Your task to perform on an android device: check android version Image 0: 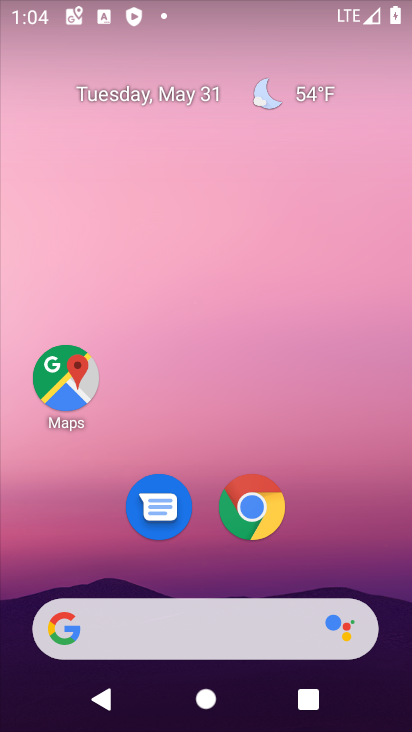
Step 0: drag from (388, 641) to (309, 79)
Your task to perform on an android device: check android version Image 1: 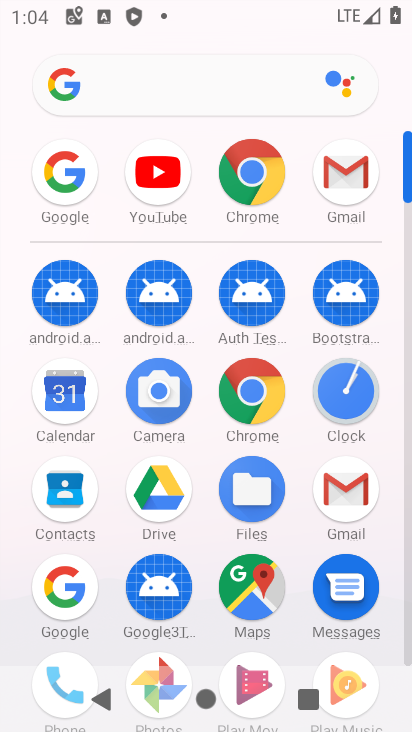
Step 1: drag from (207, 615) to (209, 144)
Your task to perform on an android device: check android version Image 2: 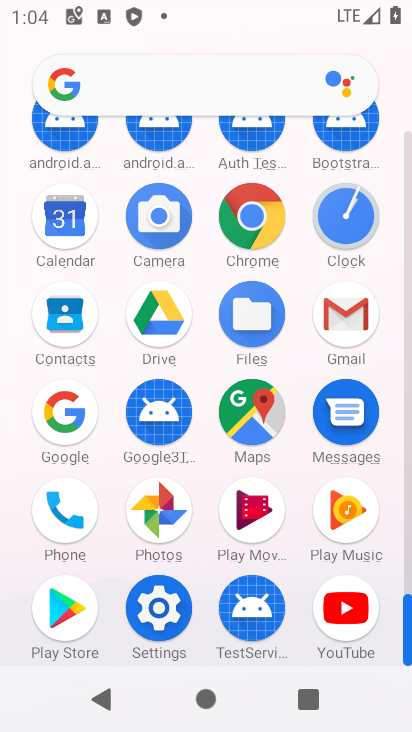
Step 2: click (155, 621)
Your task to perform on an android device: check android version Image 3: 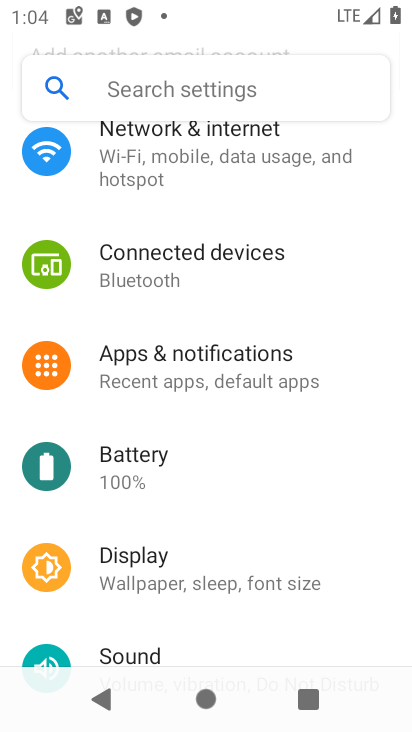
Step 3: drag from (180, 589) to (235, 6)
Your task to perform on an android device: check android version Image 4: 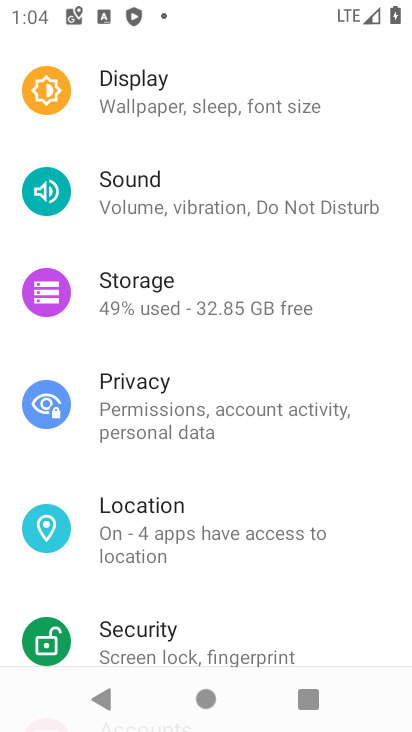
Step 4: drag from (110, 614) to (195, 11)
Your task to perform on an android device: check android version Image 5: 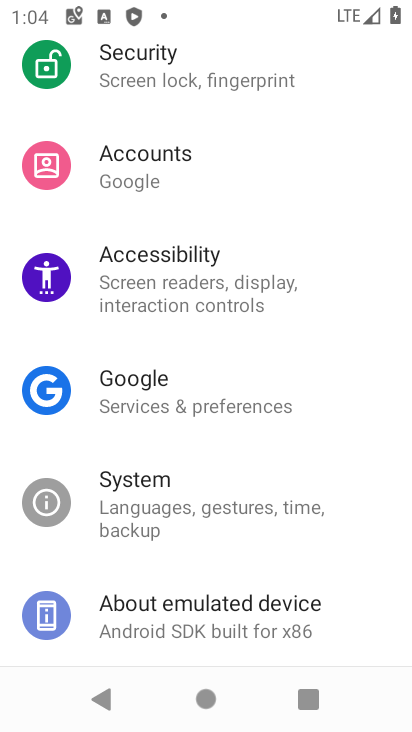
Step 5: click (190, 617)
Your task to perform on an android device: check android version Image 6: 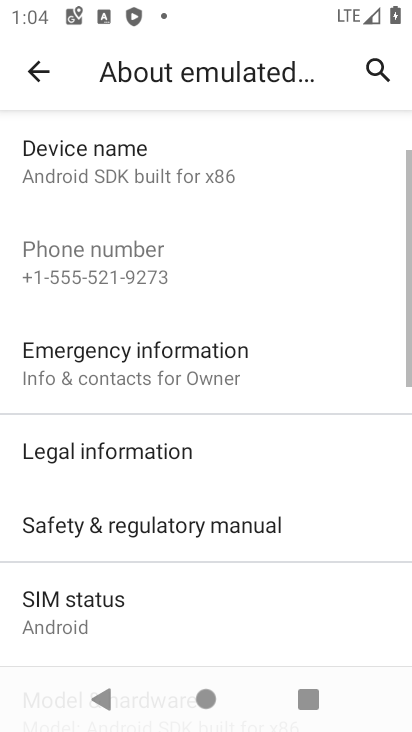
Step 6: drag from (124, 573) to (142, 217)
Your task to perform on an android device: check android version Image 7: 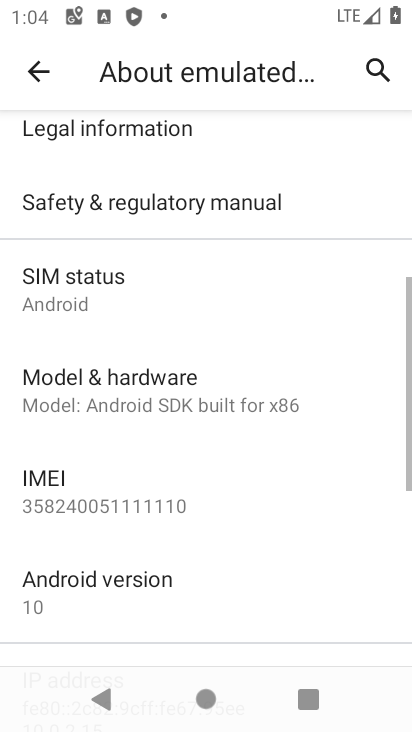
Step 7: click (145, 582)
Your task to perform on an android device: check android version Image 8: 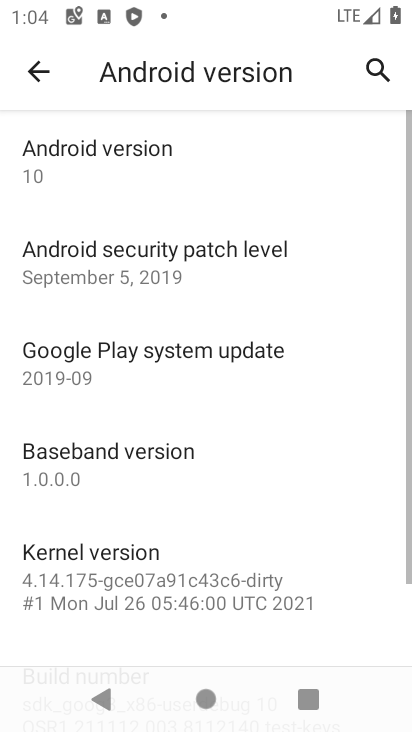
Step 8: task complete